Your task to perform on an android device: change the upload size in google photos Image 0: 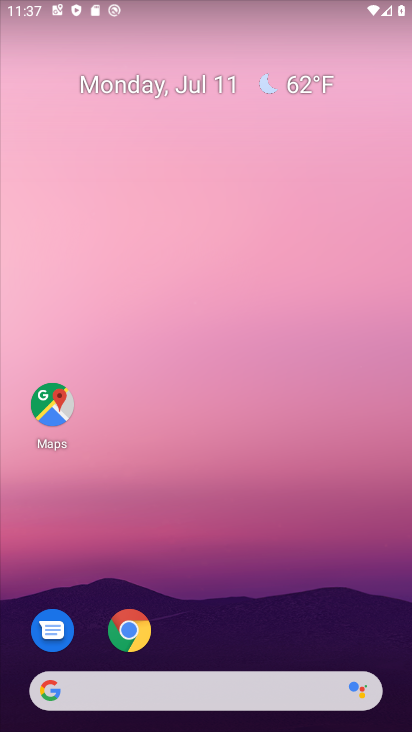
Step 0: drag from (210, 683) to (240, 29)
Your task to perform on an android device: change the upload size in google photos Image 1: 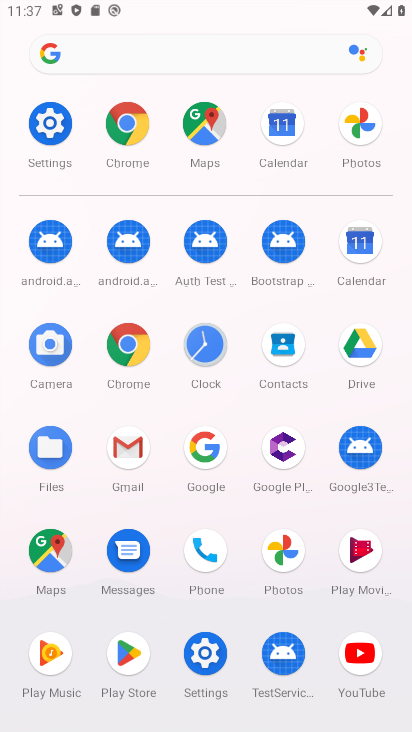
Step 1: click (283, 553)
Your task to perform on an android device: change the upload size in google photos Image 2: 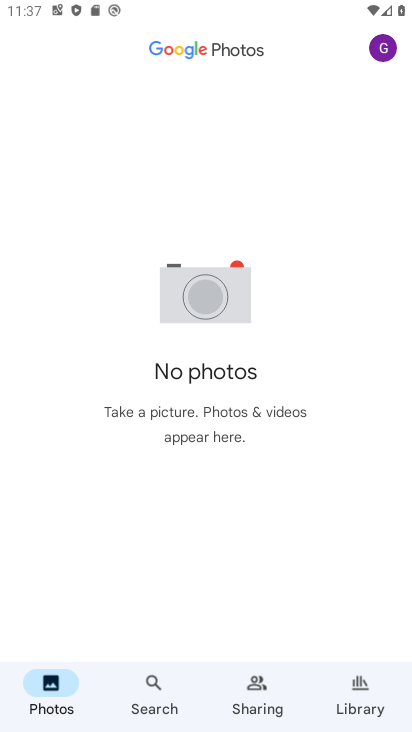
Step 2: click (385, 48)
Your task to perform on an android device: change the upload size in google photos Image 3: 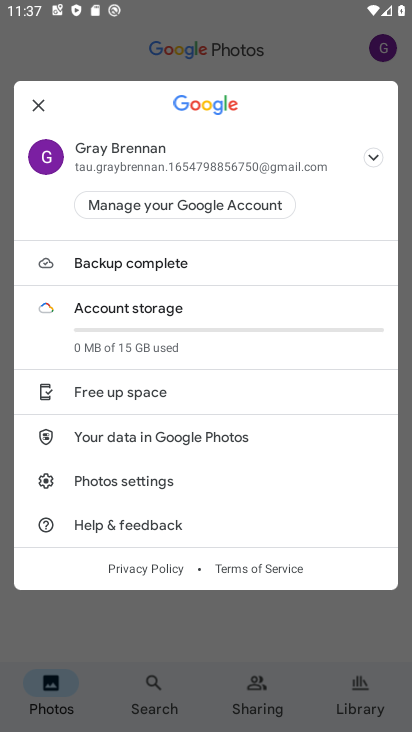
Step 3: click (121, 483)
Your task to perform on an android device: change the upload size in google photos Image 4: 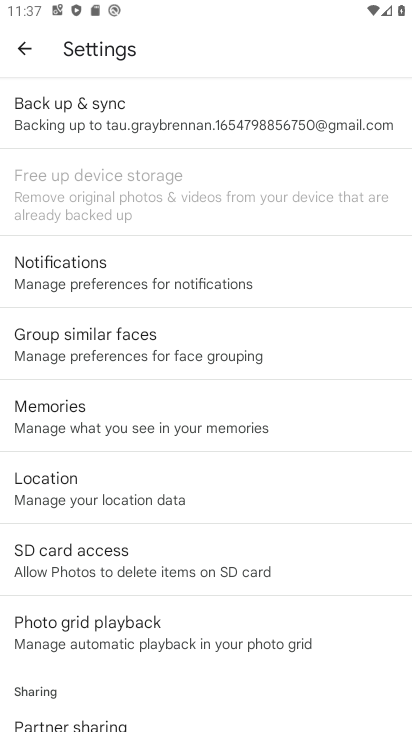
Step 4: click (107, 115)
Your task to perform on an android device: change the upload size in google photos Image 5: 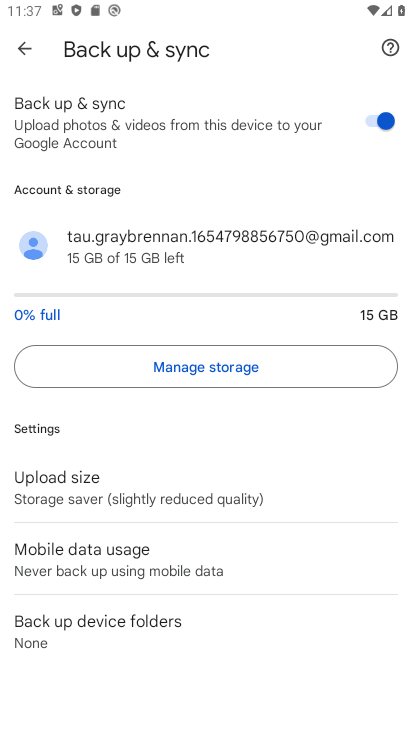
Step 5: click (89, 491)
Your task to perform on an android device: change the upload size in google photos Image 6: 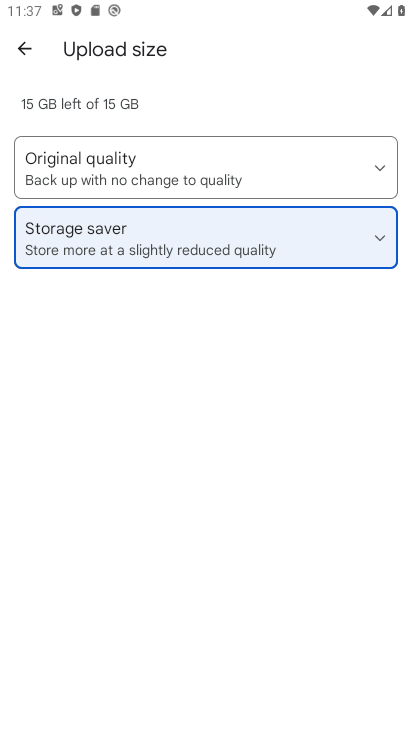
Step 6: click (161, 175)
Your task to perform on an android device: change the upload size in google photos Image 7: 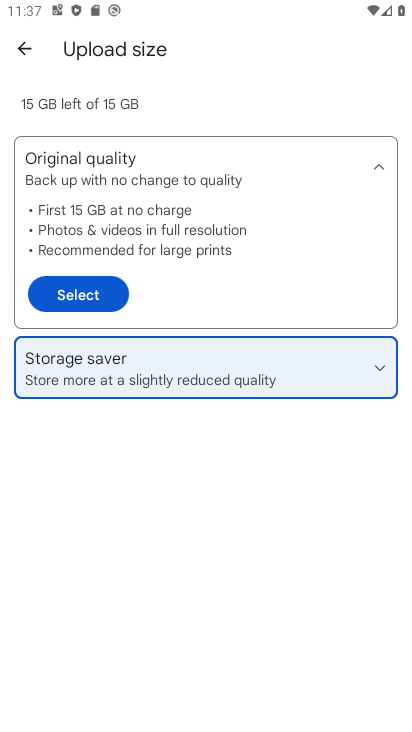
Step 7: click (105, 291)
Your task to perform on an android device: change the upload size in google photos Image 8: 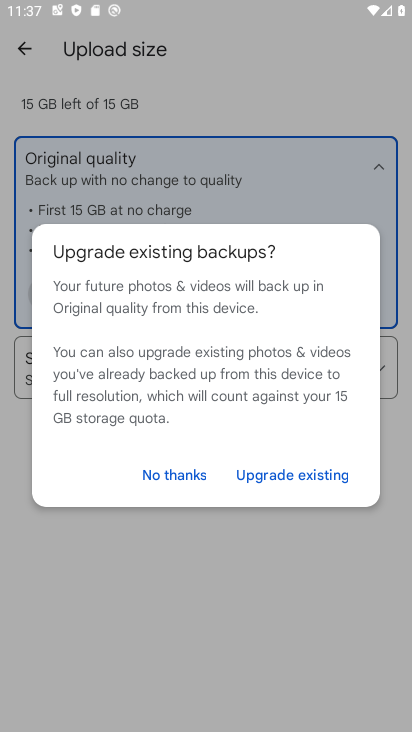
Step 8: click (276, 469)
Your task to perform on an android device: change the upload size in google photos Image 9: 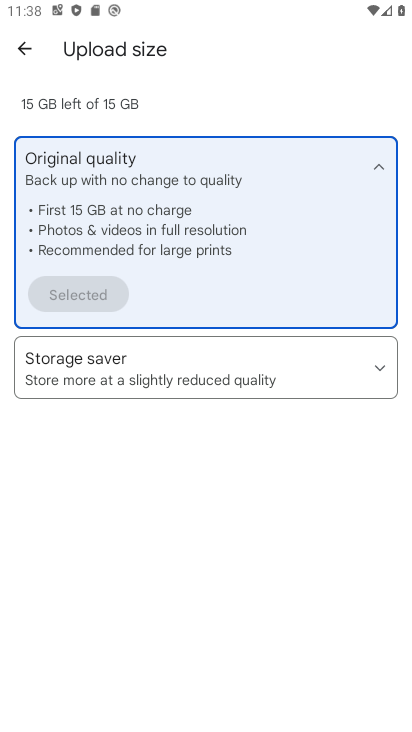
Step 9: task complete